Your task to perform on an android device: see creations saved in the google photos Image 0: 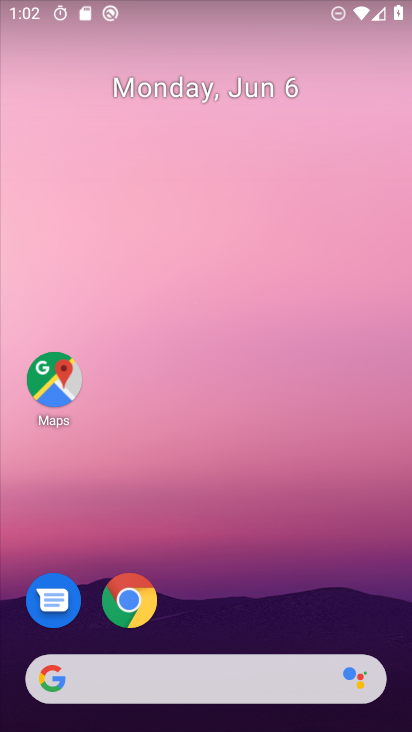
Step 0: drag from (232, 606) to (244, 189)
Your task to perform on an android device: see creations saved in the google photos Image 1: 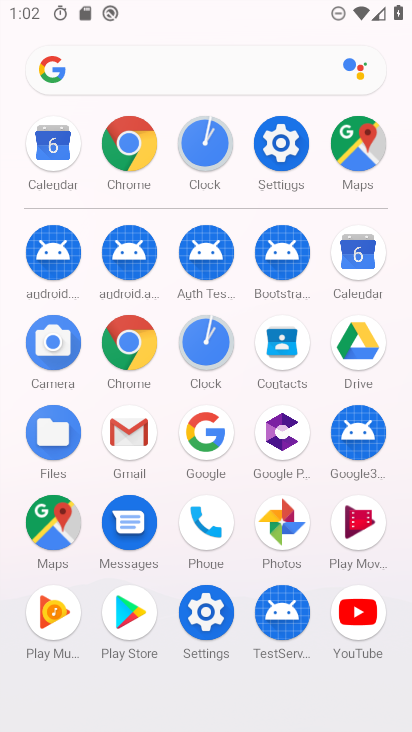
Step 1: click (284, 525)
Your task to perform on an android device: see creations saved in the google photos Image 2: 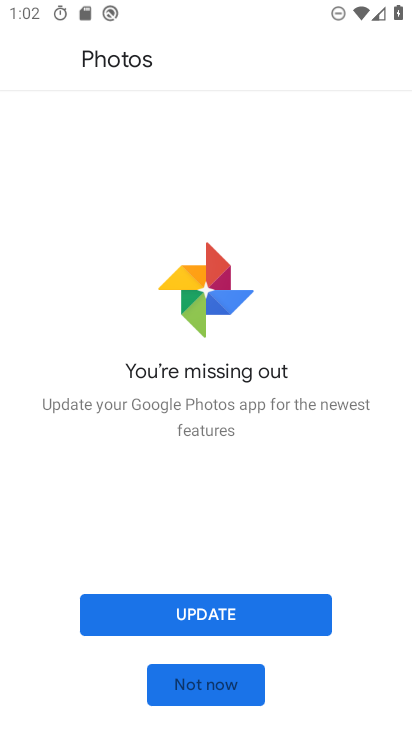
Step 2: click (215, 679)
Your task to perform on an android device: see creations saved in the google photos Image 3: 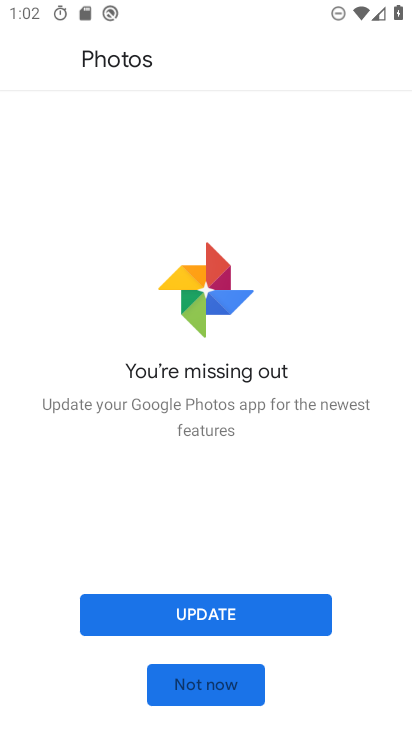
Step 3: click (218, 680)
Your task to perform on an android device: see creations saved in the google photos Image 4: 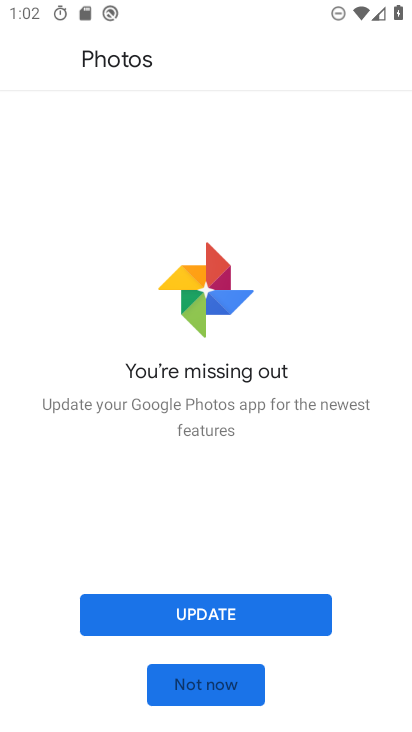
Step 4: click (220, 679)
Your task to perform on an android device: see creations saved in the google photos Image 5: 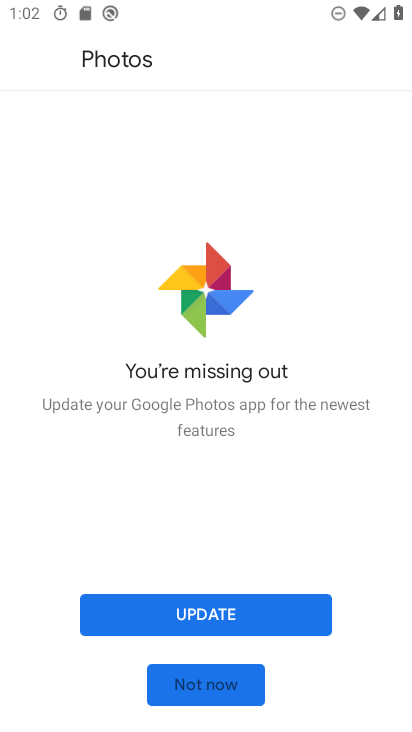
Step 5: click (221, 678)
Your task to perform on an android device: see creations saved in the google photos Image 6: 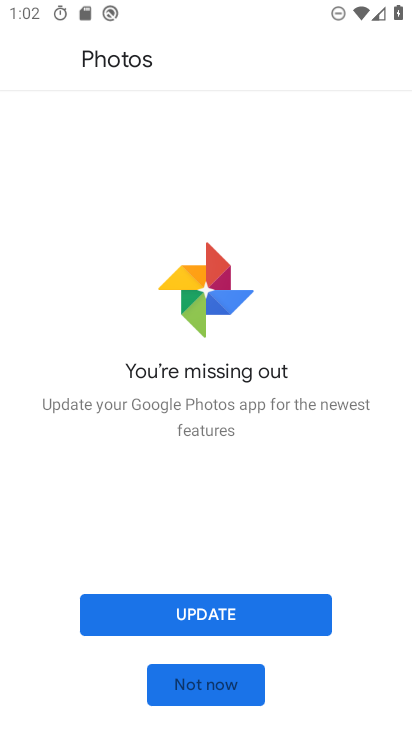
Step 6: click (221, 678)
Your task to perform on an android device: see creations saved in the google photos Image 7: 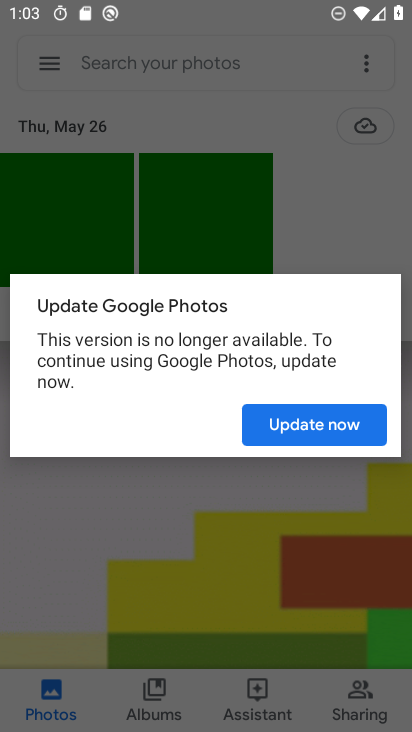
Step 7: click (297, 428)
Your task to perform on an android device: see creations saved in the google photos Image 8: 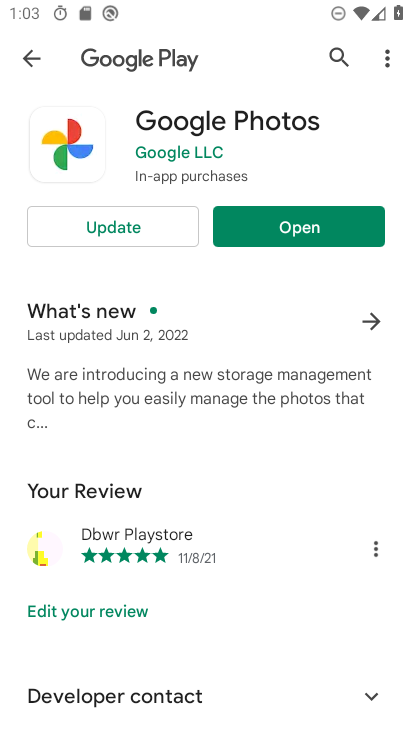
Step 8: click (263, 231)
Your task to perform on an android device: see creations saved in the google photos Image 9: 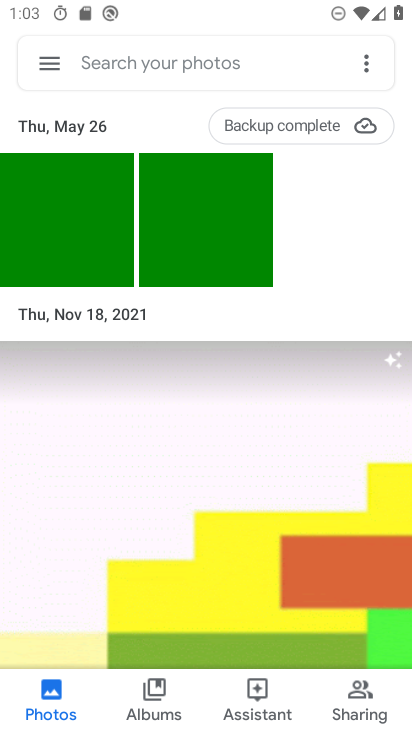
Step 9: click (201, 66)
Your task to perform on an android device: see creations saved in the google photos Image 10: 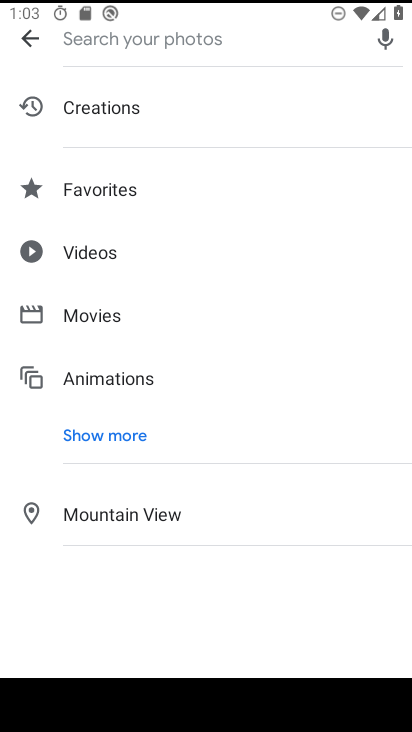
Step 10: click (109, 437)
Your task to perform on an android device: see creations saved in the google photos Image 11: 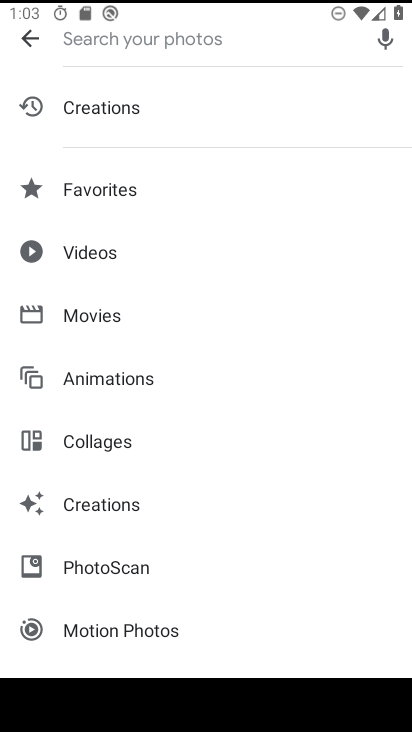
Step 11: click (128, 505)
Your task to perform on an android device: see creations saved in the google photos Image 12: 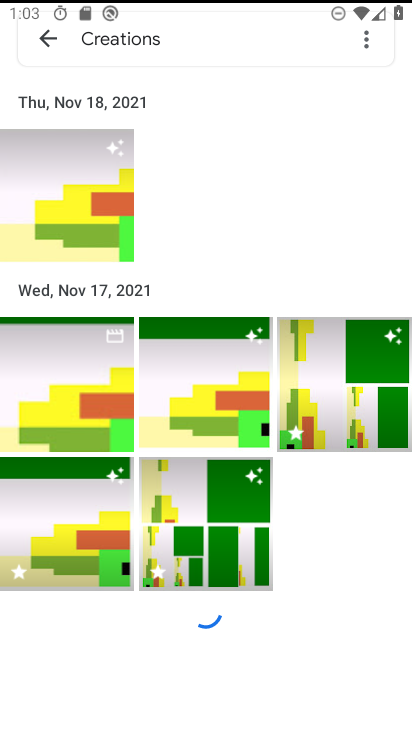
Step 12: task complete